Your task to perform on an android device: see tabs open on other devices in the chrome app Image 0: 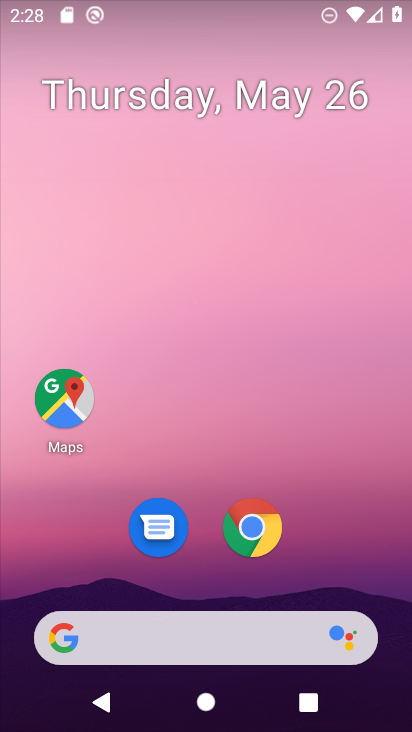
Step 0: click (245, 526)
Your task to perform on an android device: see tabs open on other devices in the chrome app Image 1: 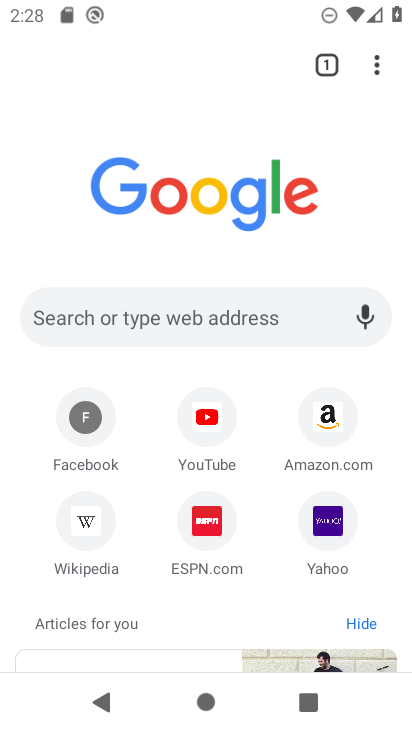
Step 1: task complete